Your task to perform on an android device: open app "Airtel Thanks" (install if not already installed) Image 0: 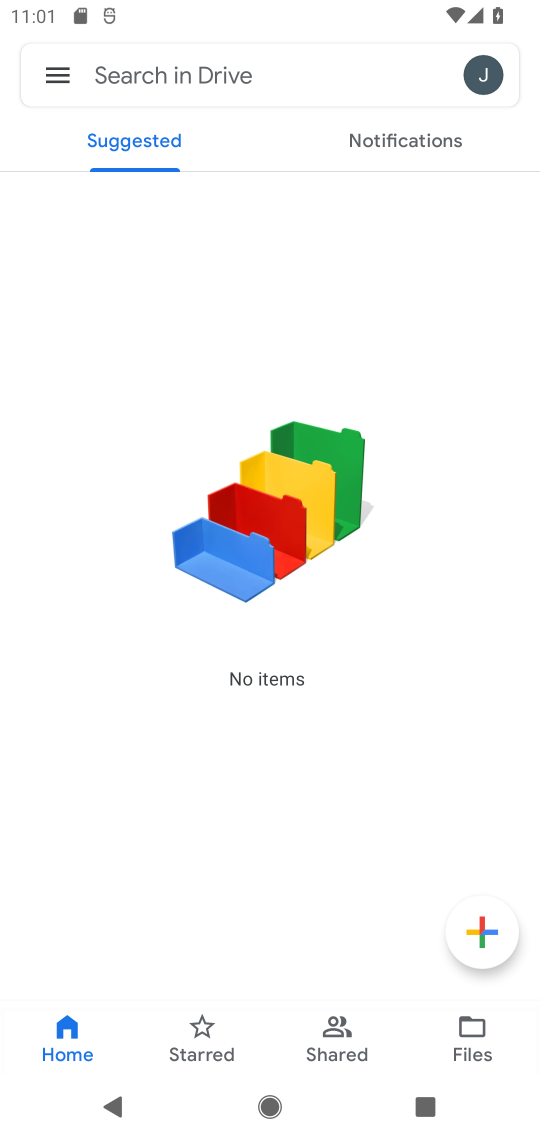
Step 0: press home button
Your task to perform on an android device: open app "Airtel Thanks" (install if not already installed) Image 1: 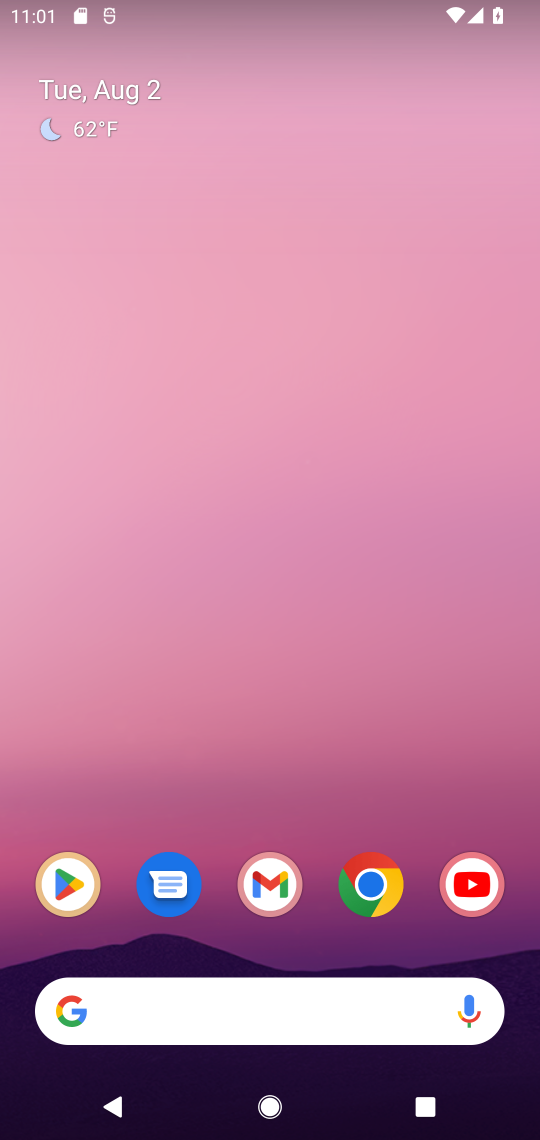
Step 1: click (84, 869)
Your task to perform on an android device: open app "Airtel Thanks" (install if not already installed) Image 2: 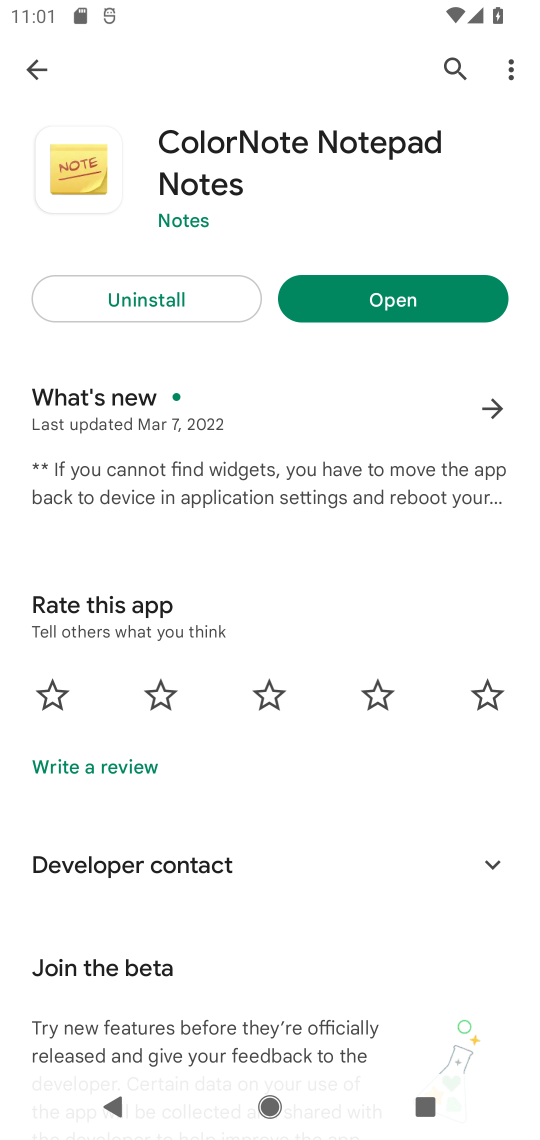
Step 2: click (33, 54)
Your task to perform on an android device: open app "Airtel Thanks" (install if not already installed) Image 3: 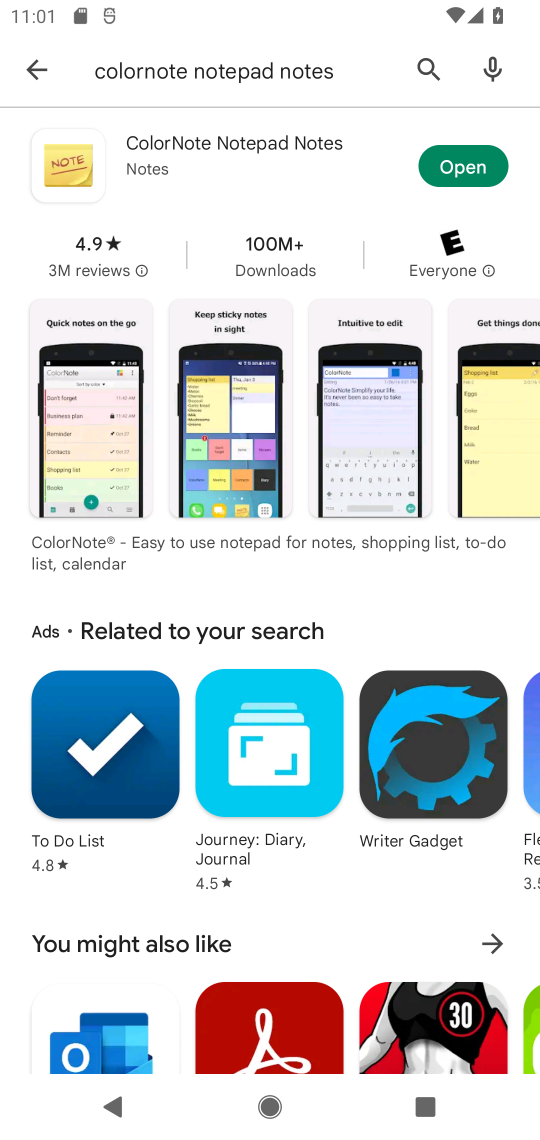
Step 3: click (214, 74)
Your task to perform on an android device: open app "Airtel Thanks" (install if not already installed) Image 4: 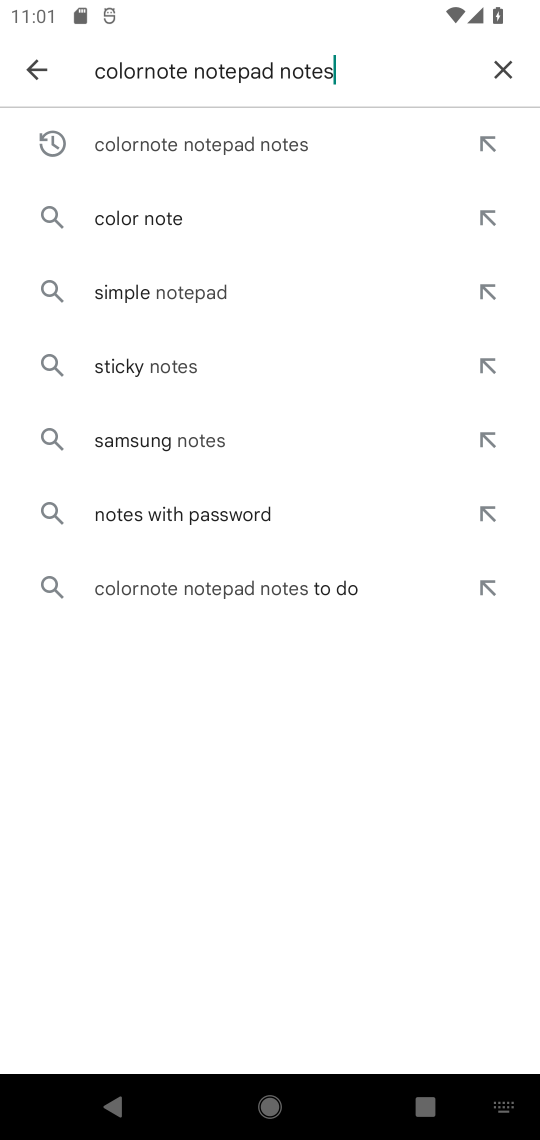
Step 4: click (496, 72)
Your task to perform on an android device: open app "Airtel Thanks" (install if not already installed) Image 5: 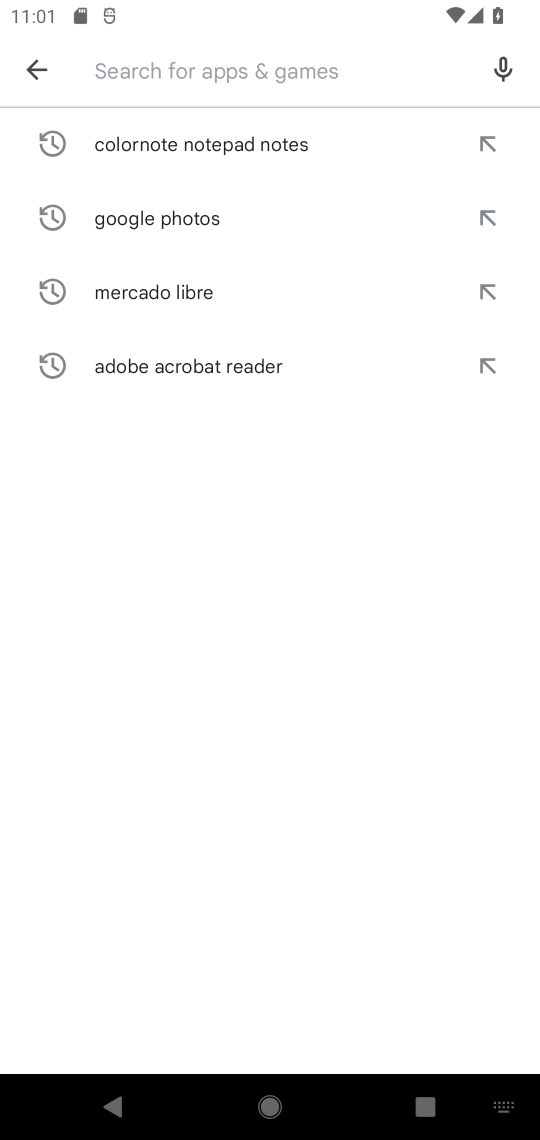
Step 5: type "Airtel thanks"
Your task to perform on an android device: open app "Airtel Thanks" (install if not already installed) Image 6: 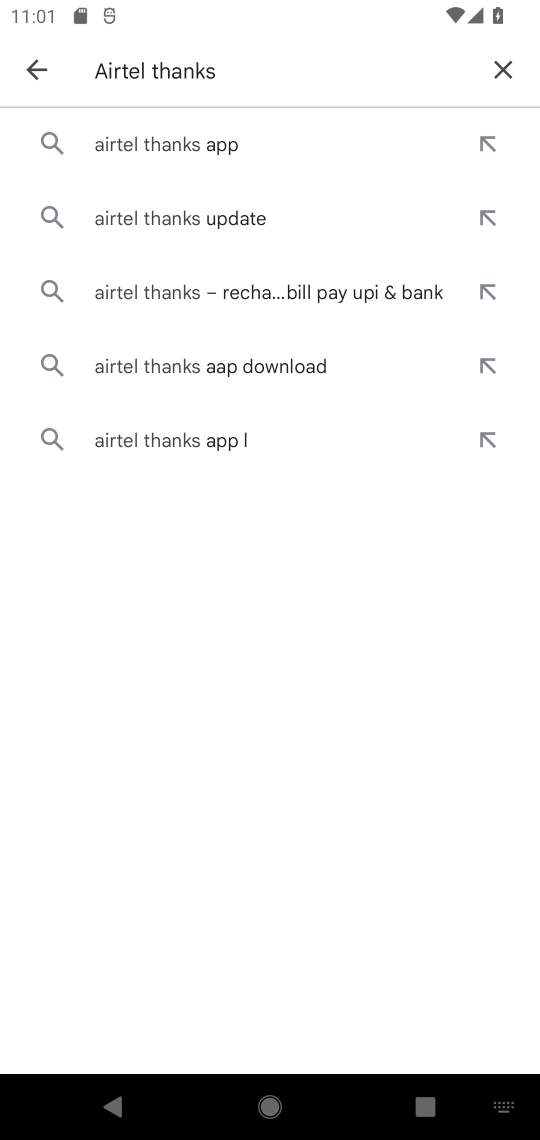
Step 6: click (193, 147)
Your task to perform on an android device: open app "Airtel Thanks" (install if not already installed) Image 7: 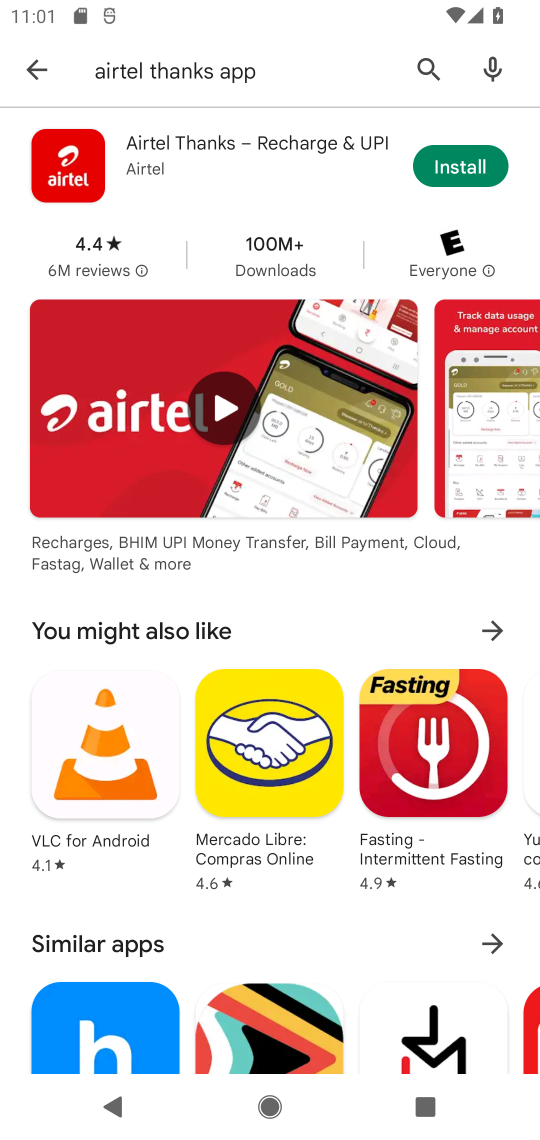
Step 7: click (484, 169)
Your task to perform on an android device: open app "Airtel Thanks" (install if not already installed) Image 8: 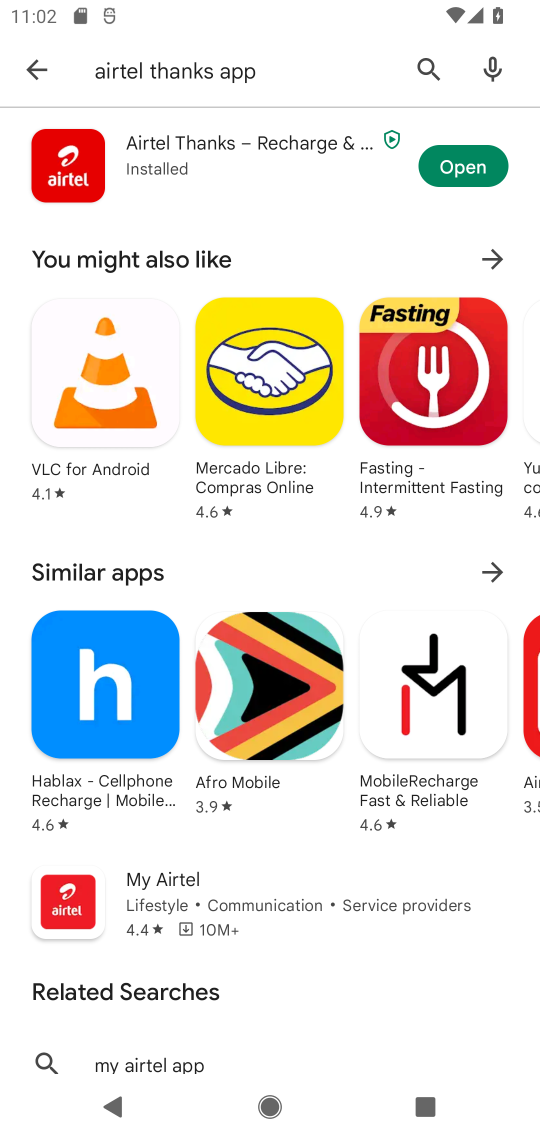
Step 8: click (457, 159)
Your task to perform on an android device: open app "Airtel Thanks" (install if not already installed) Image 9: 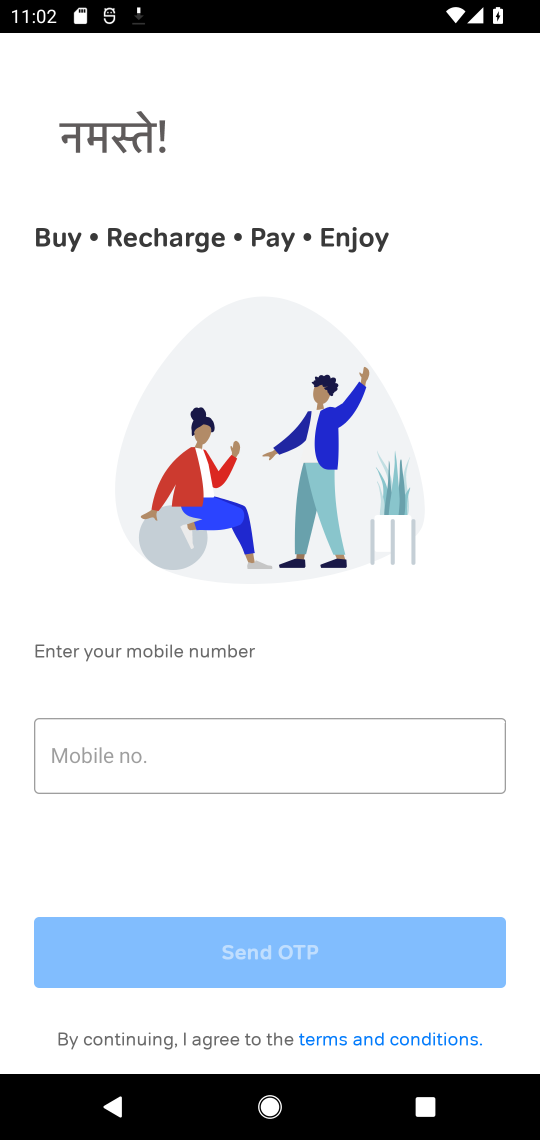
Step 9: task complete